Your task to perform on an android device: change the clock style Image 0: 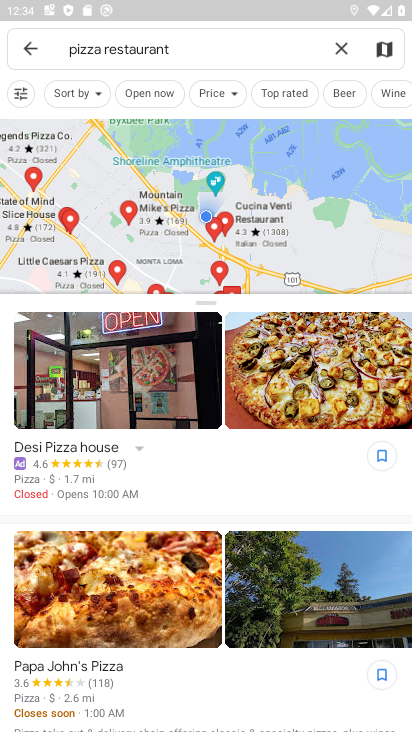
Step 0: press home button
Your task to perform on an android device: change the clock style Image 1: 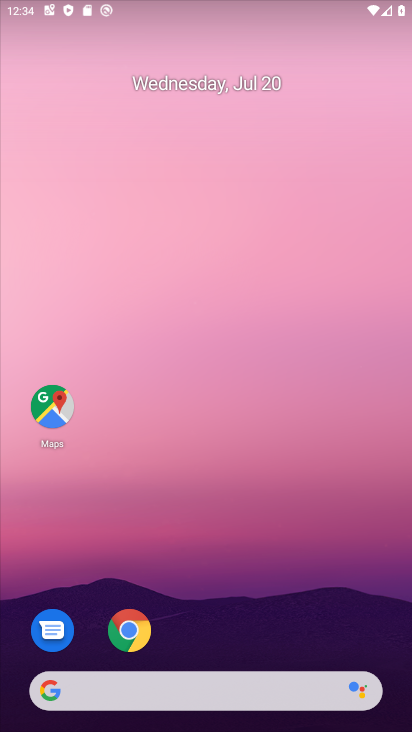
Step 1: drag from (225, 633) to (203, 66)
Your task to perform on an android device: change the clock style Image 2: 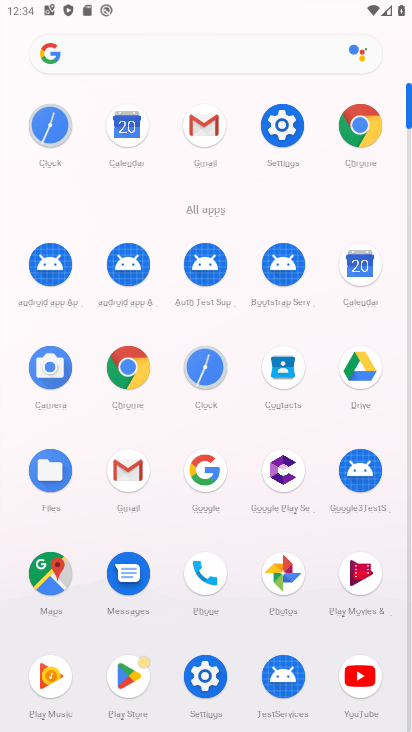
Step 2: click (58, 131)
Your task to perform on an android device: change the clock style Image 3: 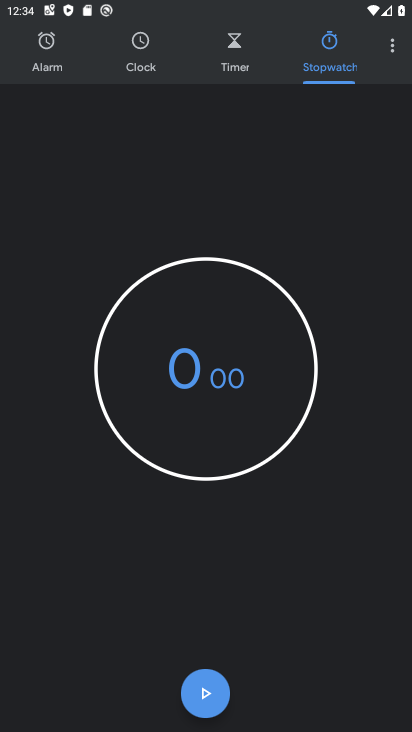
Step 3: click (392, 48)
Your task to perform on an android device: change the clock style Image 4: 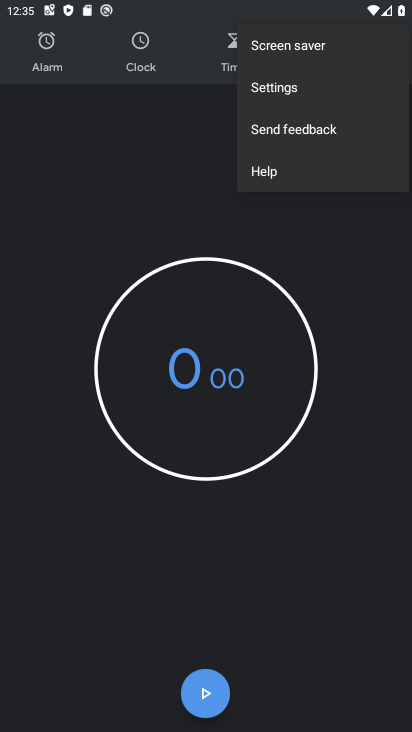
Step 4: click (267, 86)
Your task to perform on an android device: change the clock style Image 5: 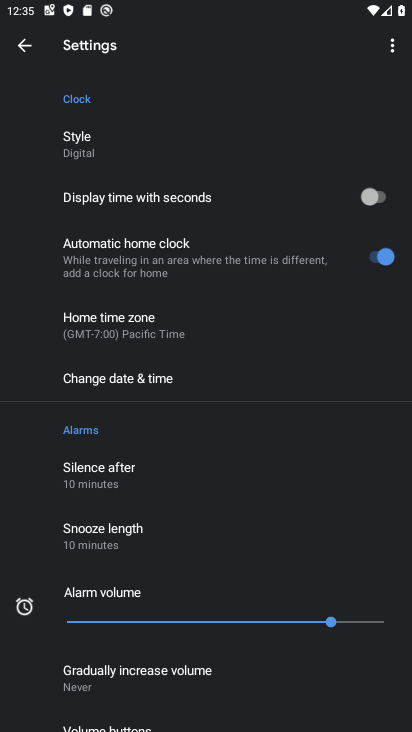
Step 5: click (81, 142)
Your task to perform on an android device: change the clock style Image 6: 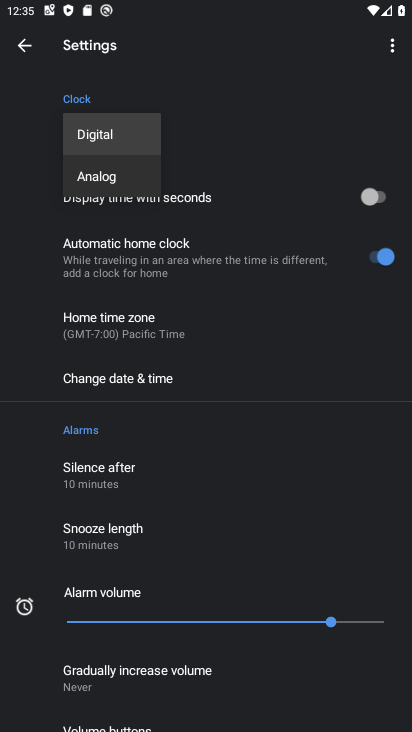
Step 6: click (97, 171)
Your task to perform on an android device: change the clock style Image 7: 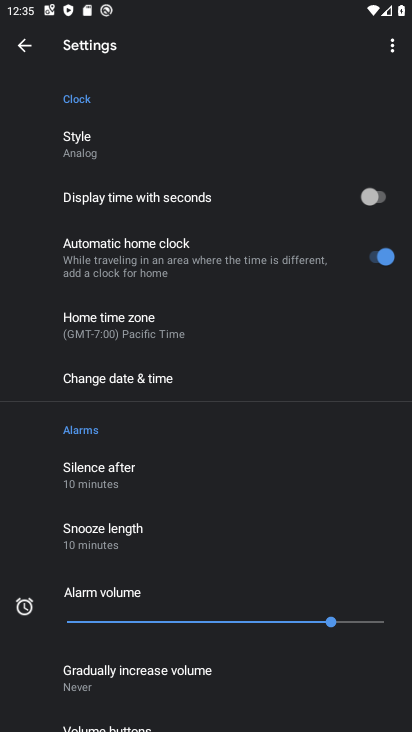
Step 7: task complete